Your task to perform on an android device: What is the recent news? Image 0: 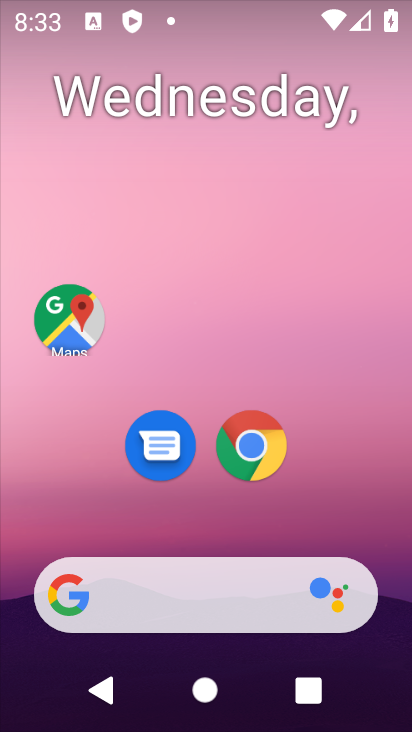
Step 0: drag from (361, 429) to (259, 2)
Your task to perform on an android device: What is the recent news? Image 1: 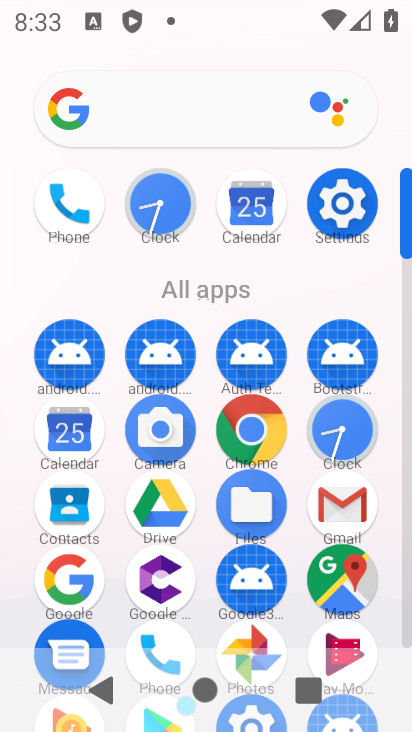
Step 1: click (234, 429)
Your task to perform on an android device: What is the recent news? Image 2: 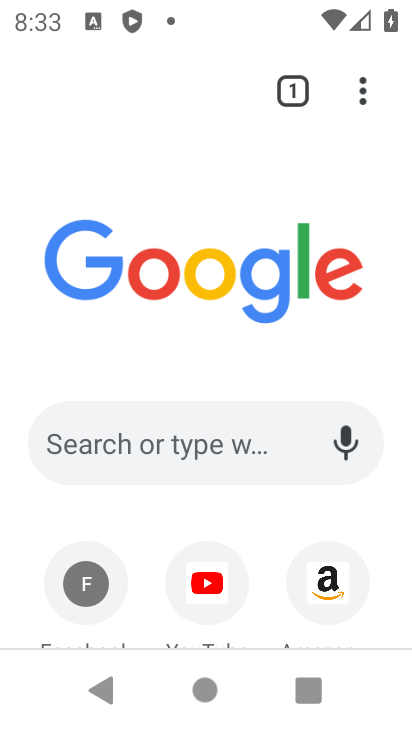
Step 2: task complete